Your task to perform on an android device: What's on my calendar today? Image 0: 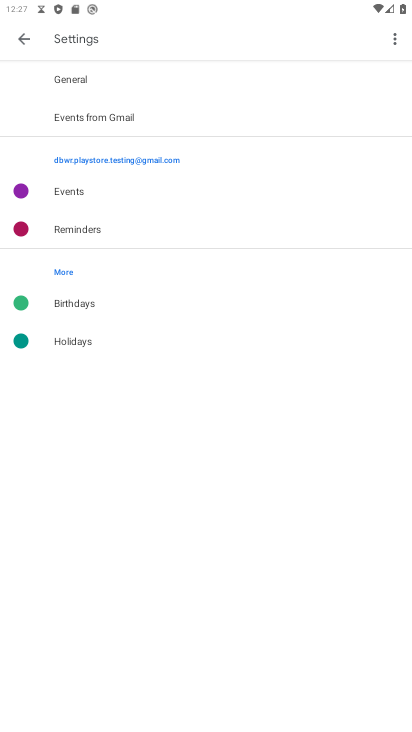
Step 0: click (19, 35)
Your task to perform on an android device: What's on my calendar today? Image 1: 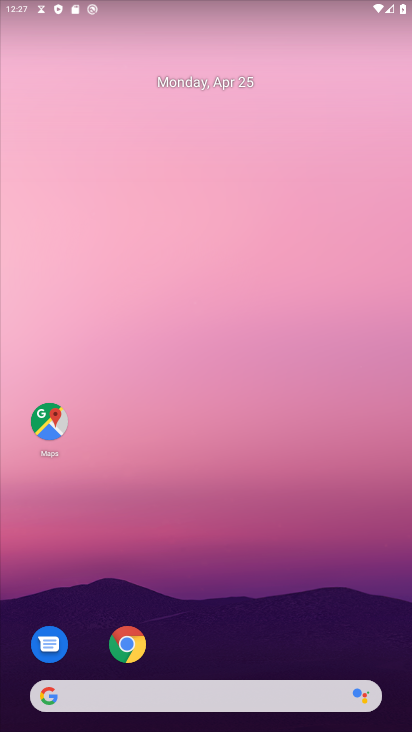
Step 1: drag from (363, 638) to (409, 468)
Your task to perform on an android device: What's on my calendar today? Image 2: 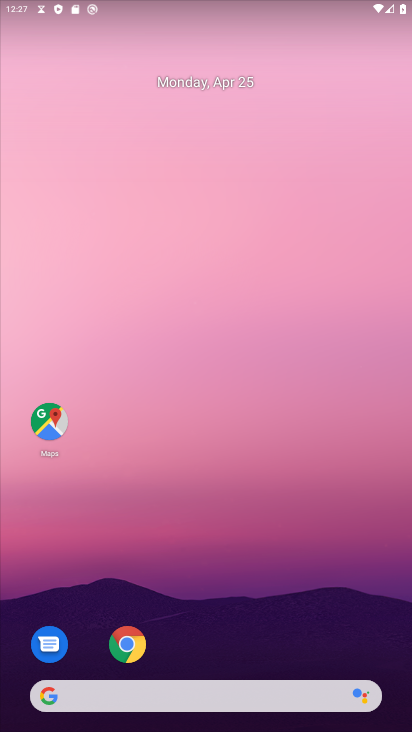
Step 2: drag from (324, 634) to (377, 11)
Your task to perform on an android device: What's on my calendar today? Image 3: 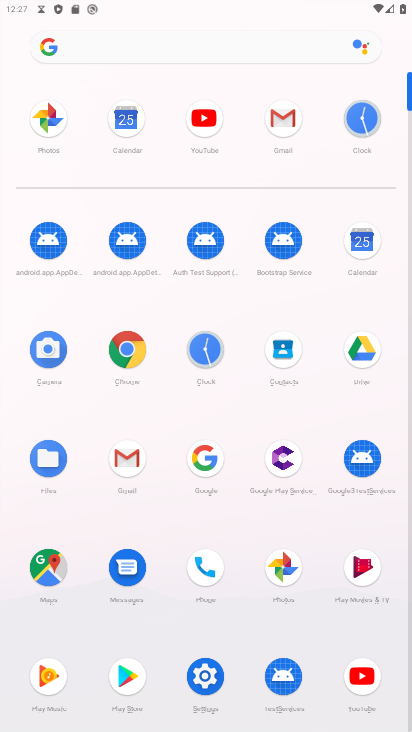
Step 3: click (362, 250)
Your task to perform on an android device: What's on my calendar today? Image 4: 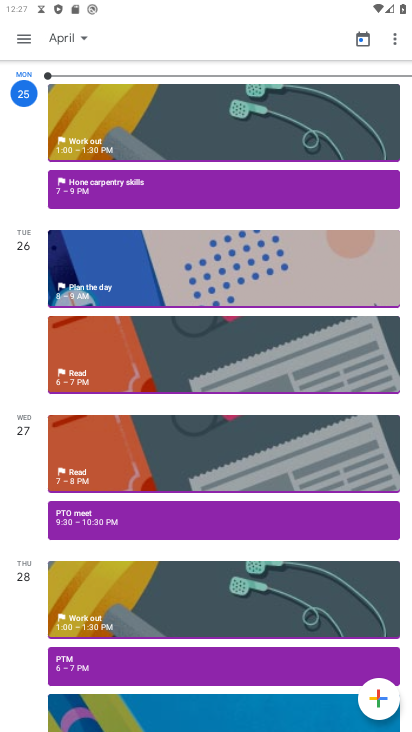
Step 4: click (87, 41)
Your task to perform on an android device: What's on my calendar today? Image 5: 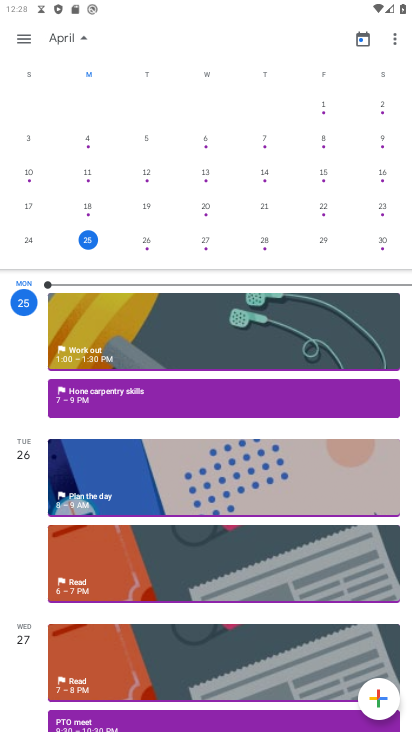
Step 5: click (143, 389)
Your task to perform on an android device: What's on my calendar today? Image 6: 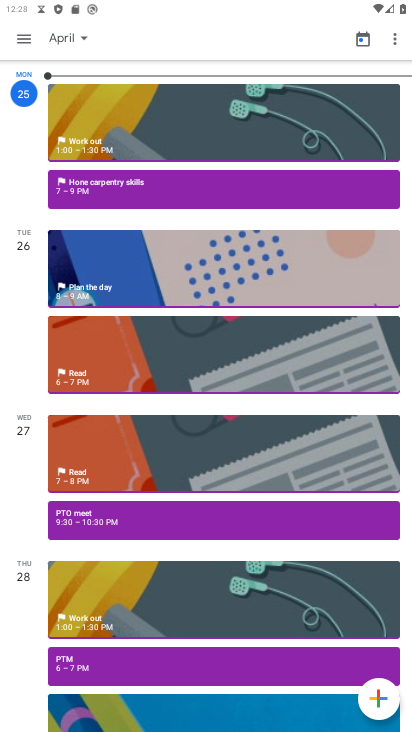
Step 6: click (136, 199)
Your task to perform on an android device: What's on my calendar today? Image 7: 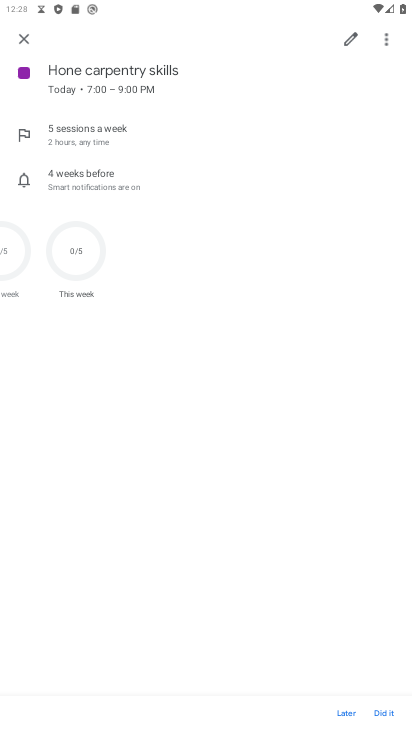
Step 7: task complete